Your task to perform on an android device: Is it going to rain today? Image 0: 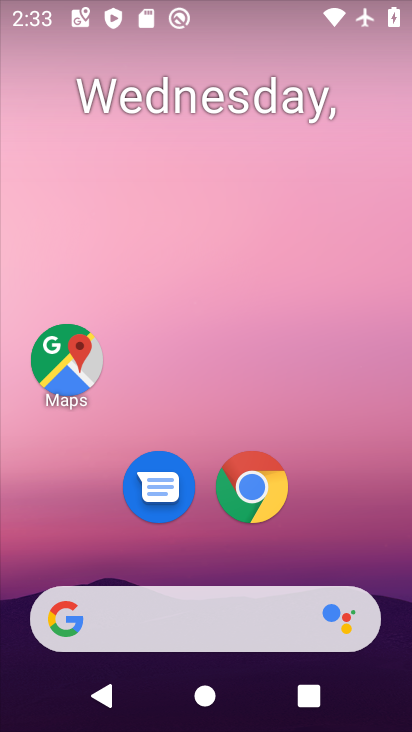
Step 0: drag from (330, 543) to (314, 167)
Your task to perform on an android device: Is it going to rain today? Image 1: 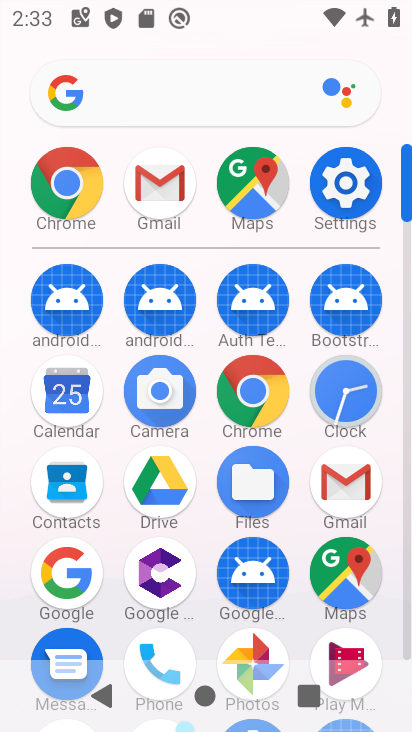
Step 1: click (46, 94)
Your task to perform on an android device: Is it going to rain today? Image 2: 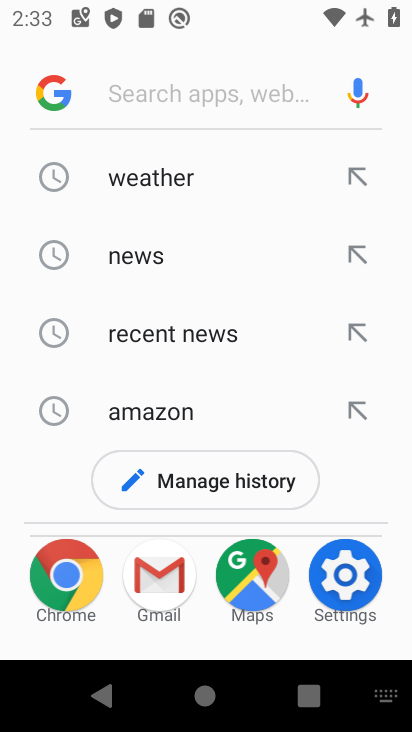
Step 2: click (46, 94)
Your task to perform on an android device: Is it going to rain today? Image 3: 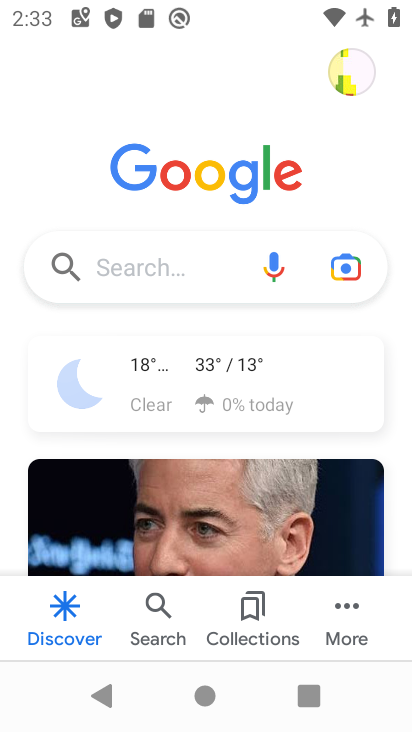
Step 3: click (130, 410)
Your task to perform on an android device: Is it going to rain today? Image 4: 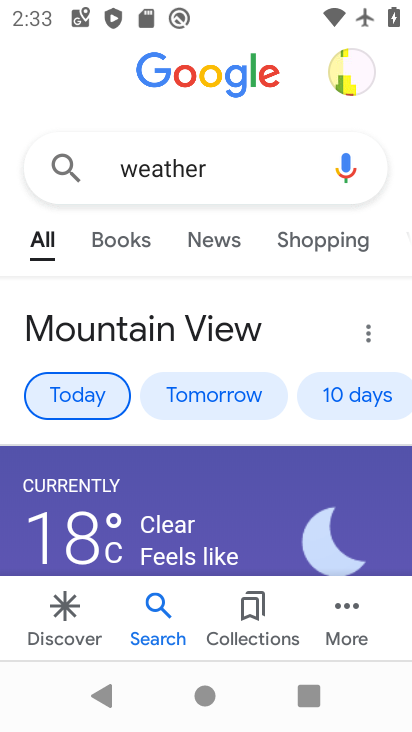
Step 4: task complete